Your task to perform on an android device: create a new album in the google photos Image 0: 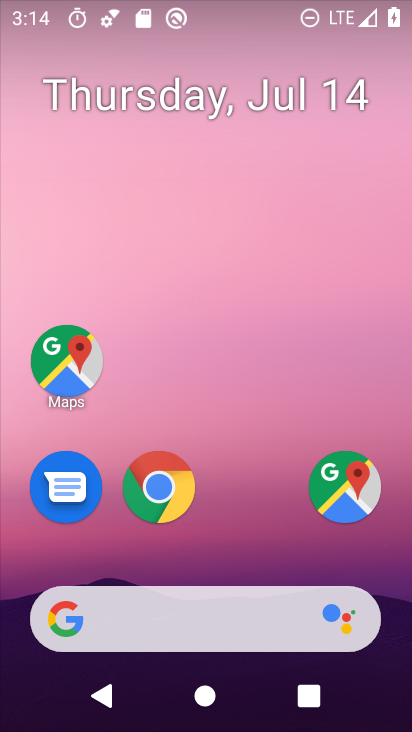
Step 0: drag from (234, 552) to (241, 165)
Your task to perform on an android device: create a new album in the google photos Image 1: 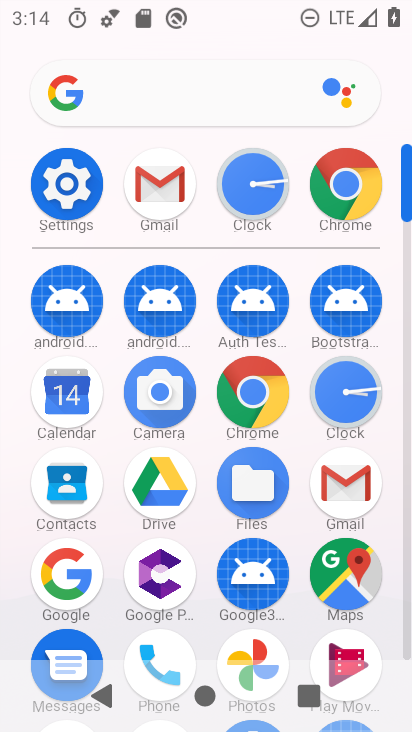
Step 1: click (249, 662)
Your task to perform on an android device: create a new album in the google photos Image 2: 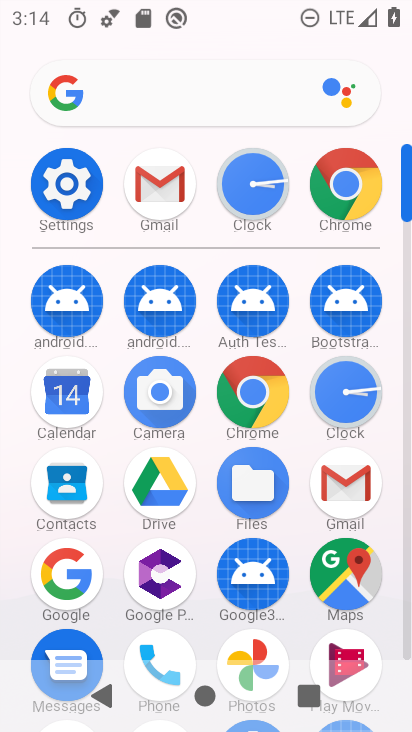
Step 2: drag from (382, 521) to (396, 307)
Your task to perform on an android device: create a new album in the google photos Image 3: 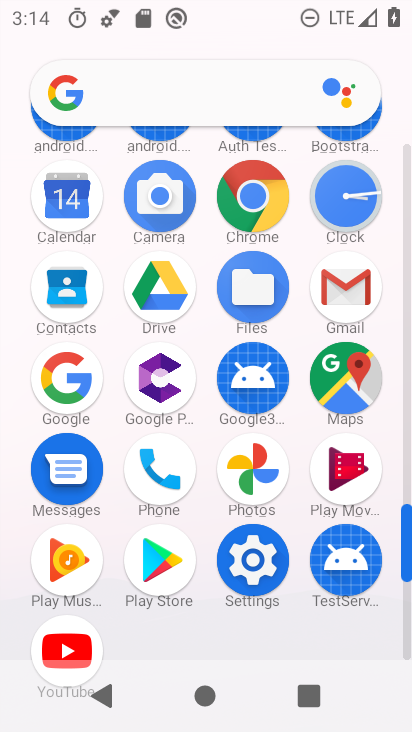
Step 3: click (253, 469)
Your task to perform on an android device: create a new album in the google photos Image 4: 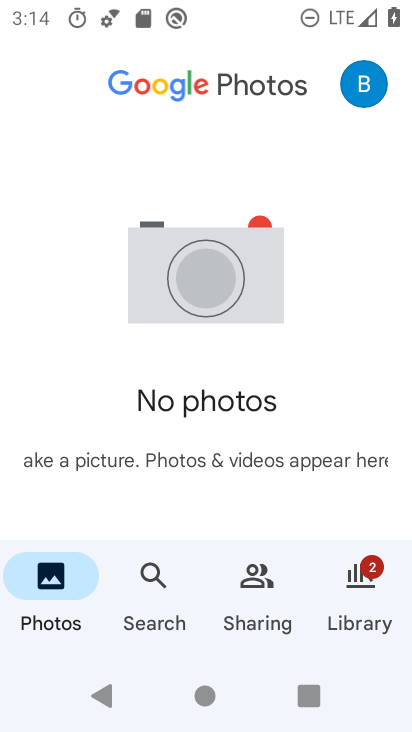
Step 4: click (367, 582)
Your task to perform on an android device: create a new album in the google photos Image 5: 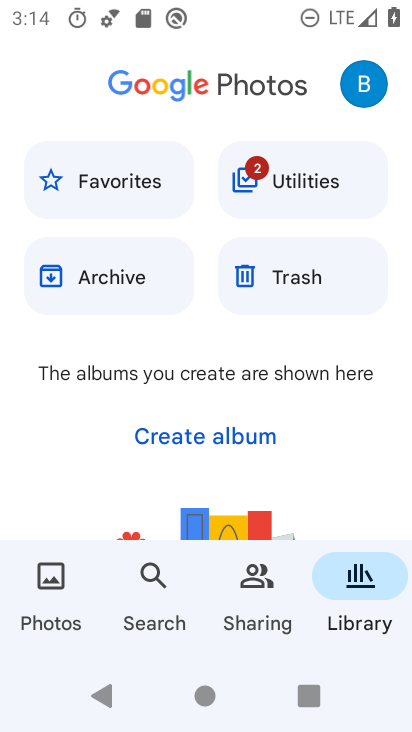
Step 5: click (260, 433)
Your task to perform on an android device: create a new album in the google photos Image 6: 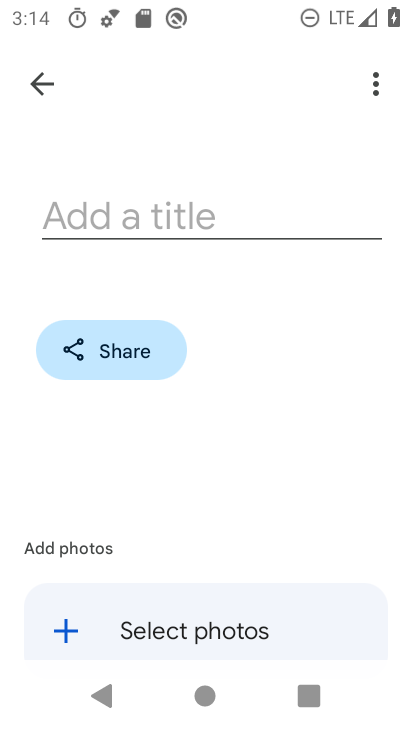
Step 6: click (199, 227)
Your task to perform on an android device: create a new album in the google photos Image 7: 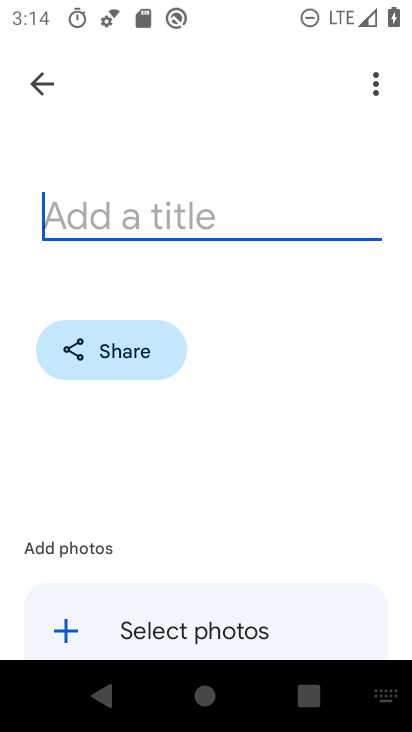
Step 7: type "fav"
Your task to perform on an android device: create a new album in the google photos Image 8: 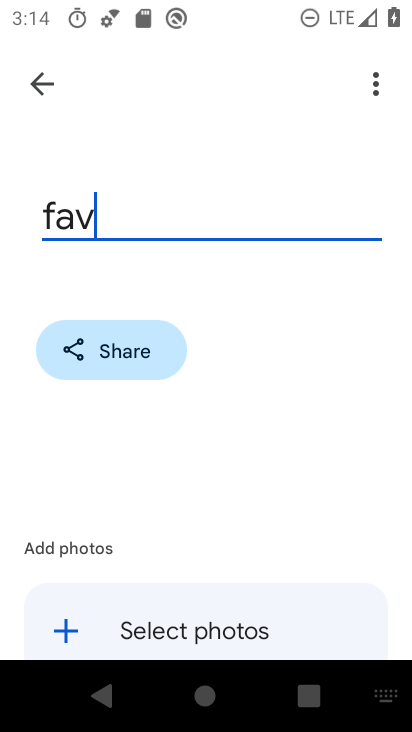
Step 8: click (221, 629)
Your task to perform on an android device: create a new album in the google photos Image 9: 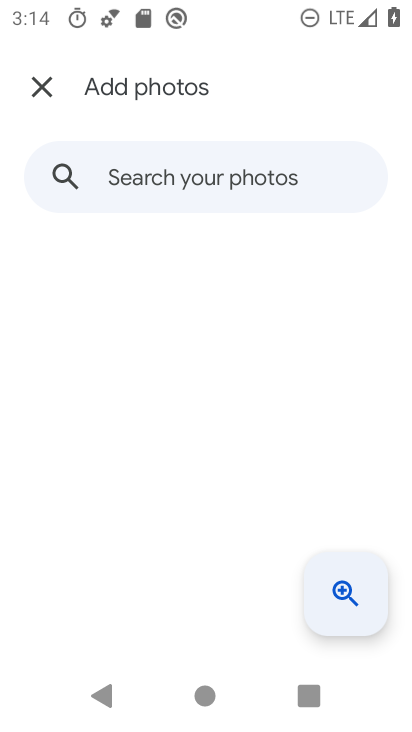
Step 9: task complete